Your task to perform on an android device: Open maps Image 0: 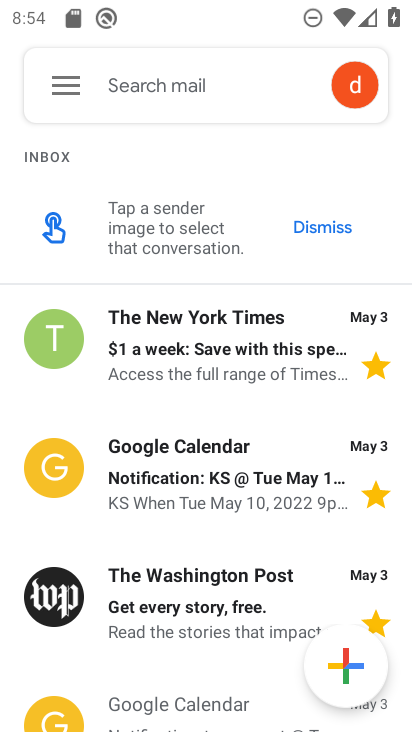
Step 0: press home button
Your task to perform on an android device: Open maps Image 1: 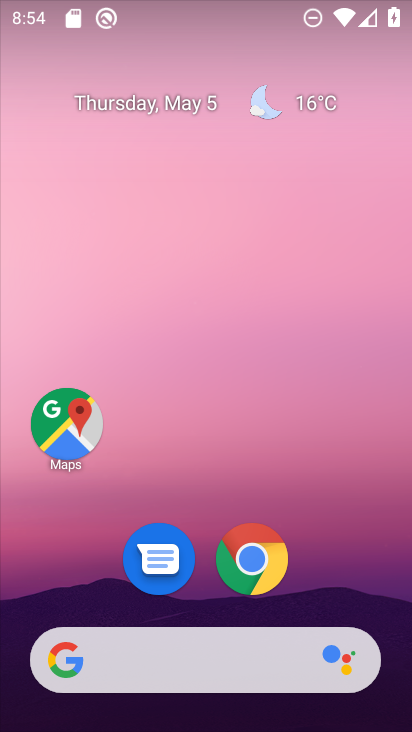
Step 1: click (55, 424)
Your task to perform on an android device: Open maps Image 2: 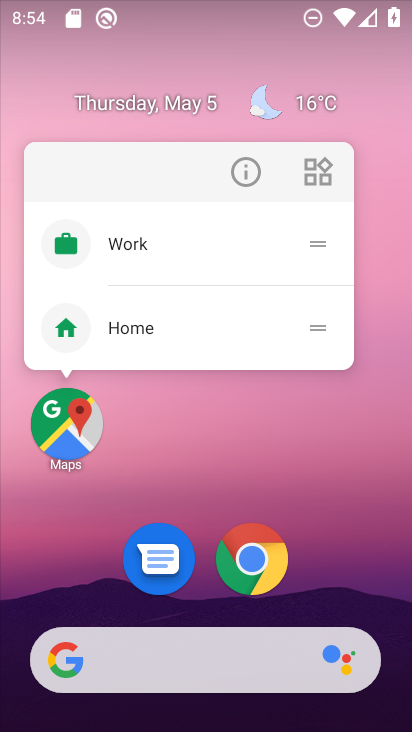
Step 2: click (59, 437)
Your task to perform on an android device: Open maps Image 3: 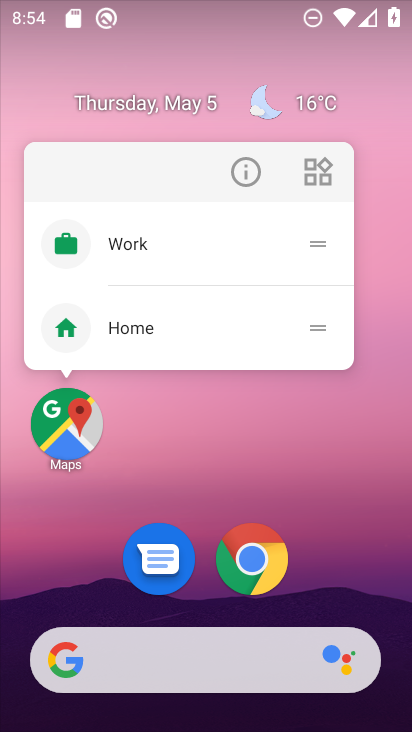
Step 3: click (64, 433)
Your task to perform on an android device: Open maps Image 4: 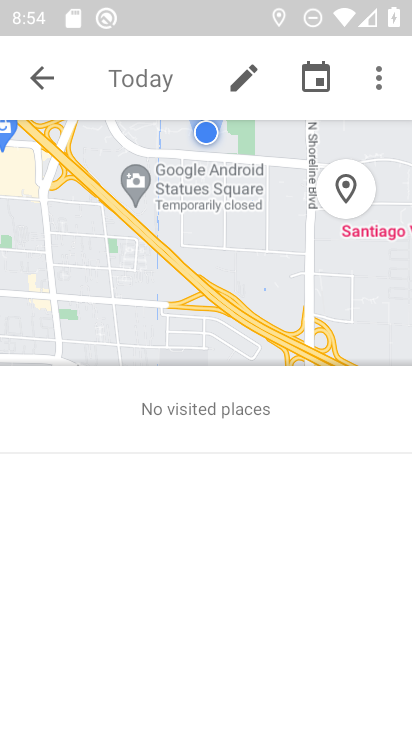
Step 4: task complete